Your task to perform on an android device: install app "Indeed Job Search" Image 0: 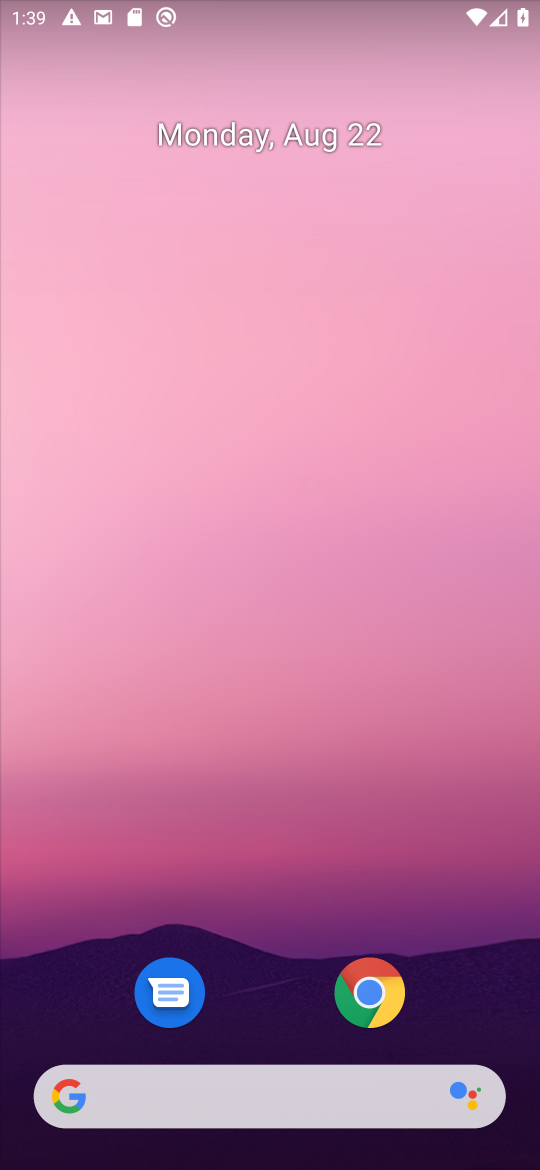
Step 0: task impossible